Your task to perform on an android device: Go to Amazon Image 0: 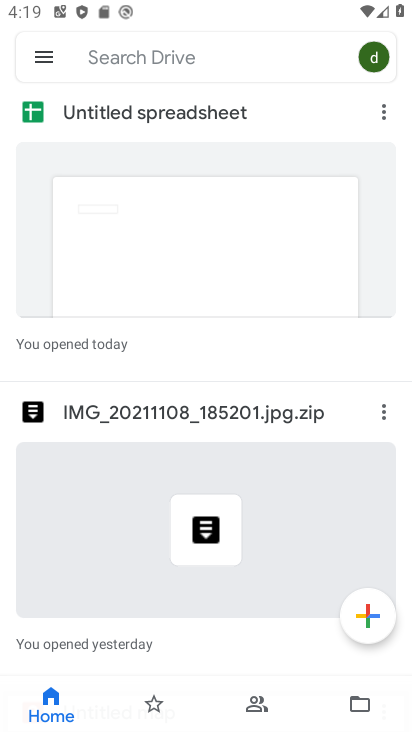
Step 0: press home button
Your task to perform on an android device: Go to Amazon Image 1: 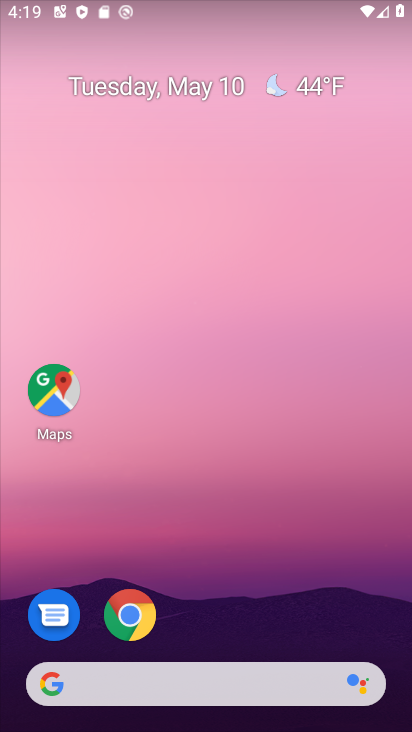
Step 1: click (130, 619)
Your task to perform on an android device: Go to Amazon Image 2: 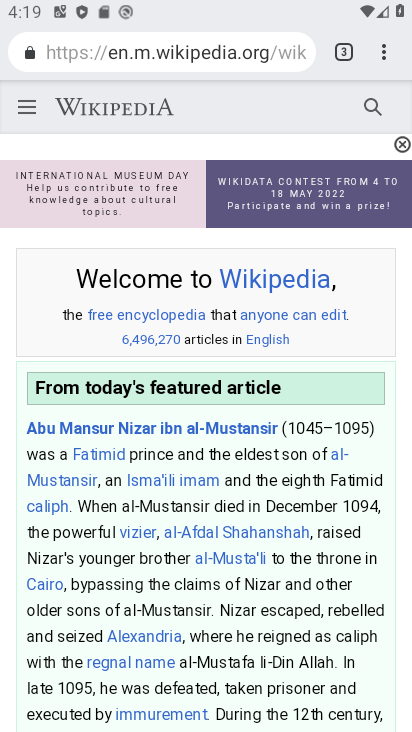
Step 2: click (384, 55)
Your task to perform on an android device: Go to Amazon Image 3: 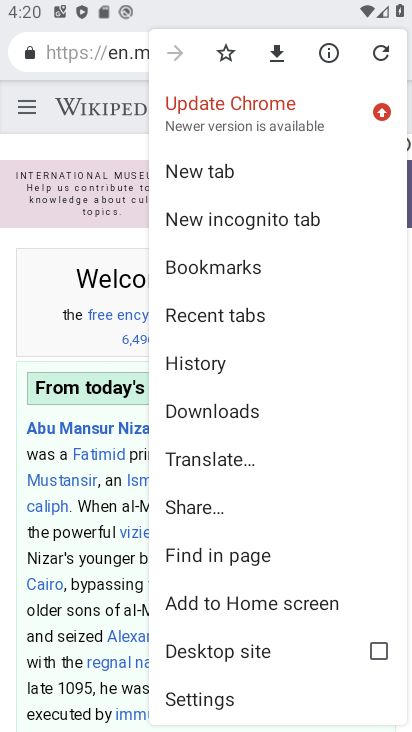
Step 3: click (213, 168)
Your task to perform on an android device: Go to Amazon Image 4: 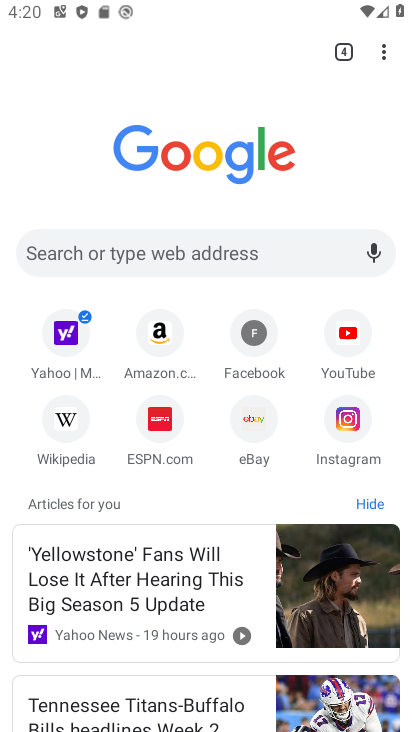
Step 4: click (162, 329)
Your task to perform on an android device: Go to Amazon Image 5: 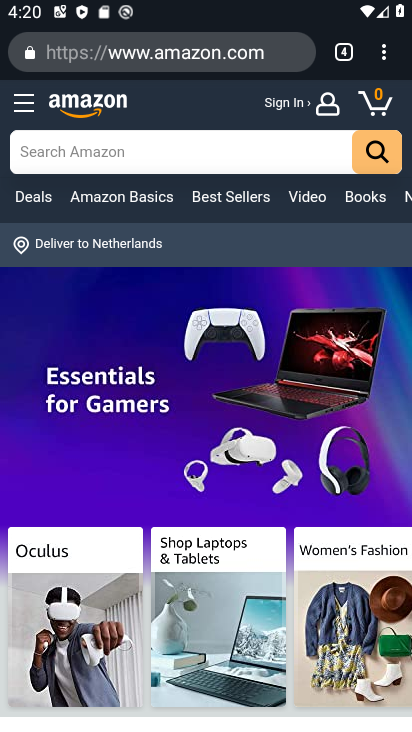
Step 5: task complete